Your task to perform on an android device: all mails in gmail Image 0: 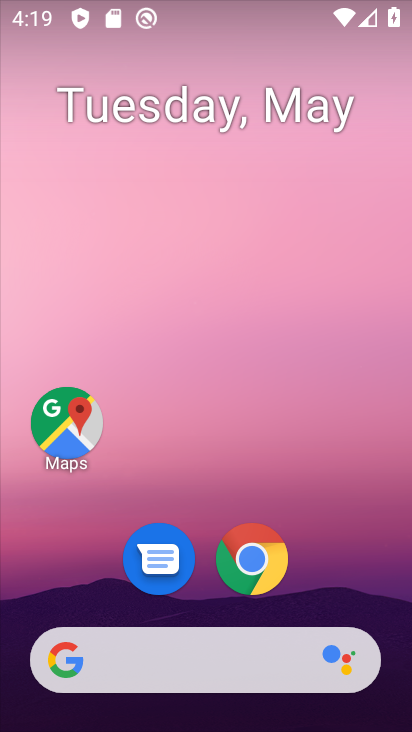
Step 0: drag from (253, 445) to (199, 122)
Your task to perform on an android device: all mails in gmail Image 1: 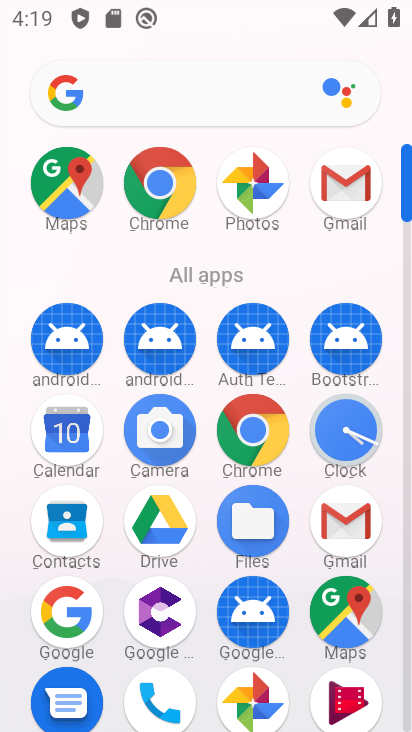
Step 1: click (334, 520)
Your task to perform on an android device: all mails in gmail Image 2: 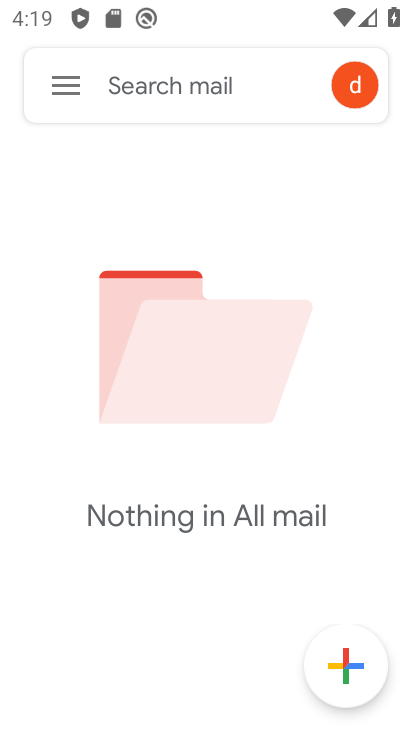
Step 2: click (71, 89)
Your task to perform on an android device: all mails in gmail Image 3: 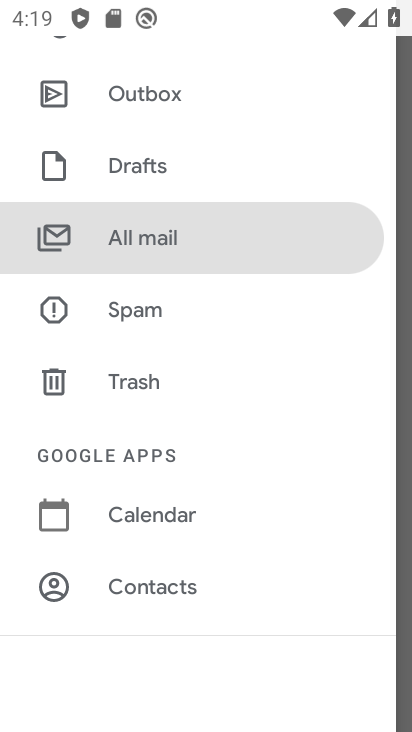
Step 3: click (146, 220)
Your task to perform on an android device: all mails in gmail Image 4: 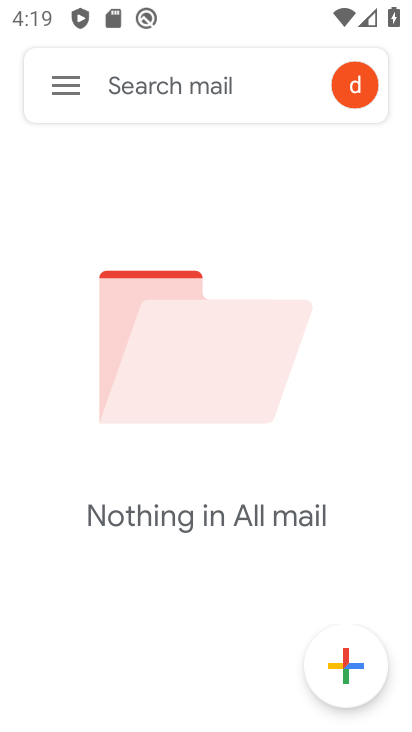
Step 4: task complete